Your task to perform on an android device: see tabs open on other devices in the chrome app Image 0: 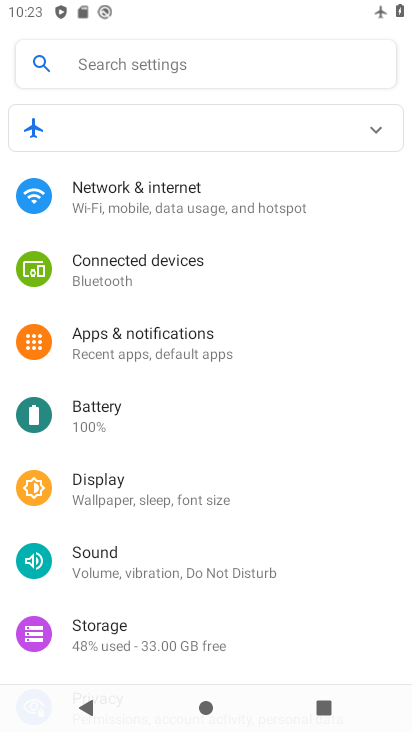
Step 0: press back button
Your task to perform on an android device: see tabs open on other devices in the chrome app Image 1: 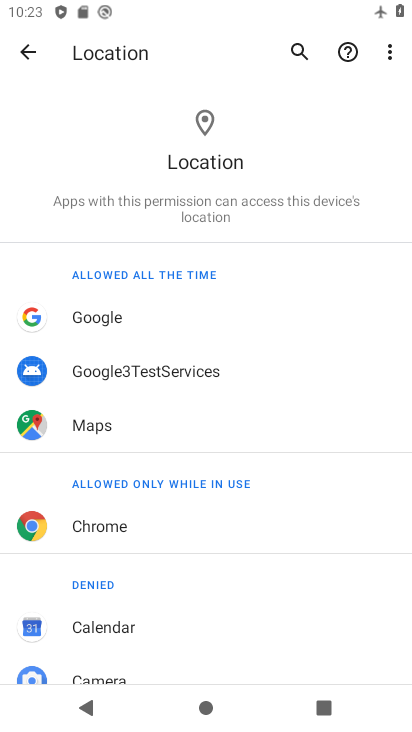
Step 1: press home button
Your task to perform on an android device: see tabs open on other devices in the chrome app Image 2: 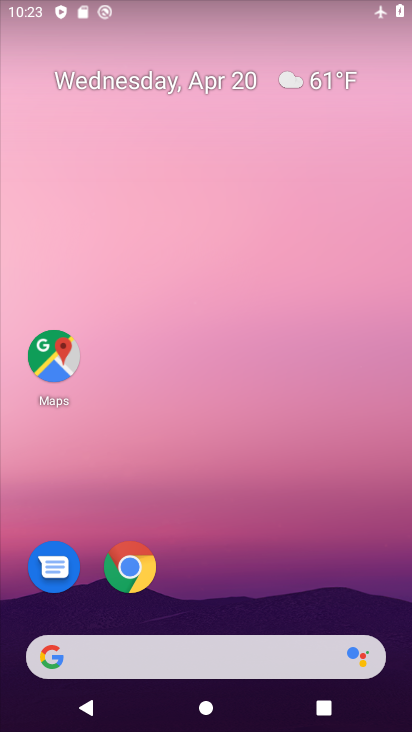
Step 2: click (131, 562)
Your task to perform on an android device: see tabs open on other devices in the chrome app Image 3: 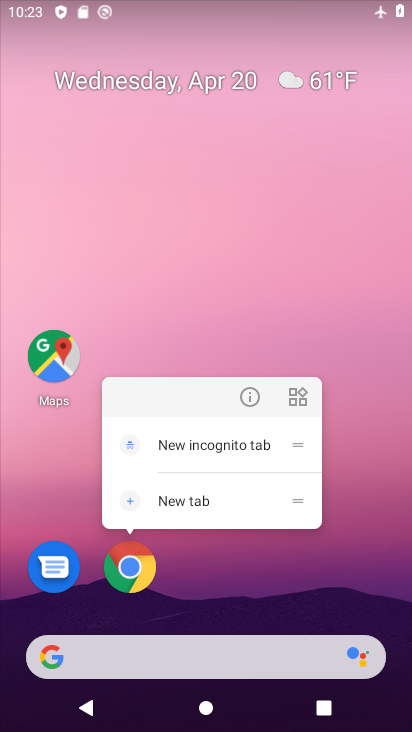
Step 3: click (134, 563)
Your task to perform on an android device: see tabs open on other devices in the chrome app Image 4: 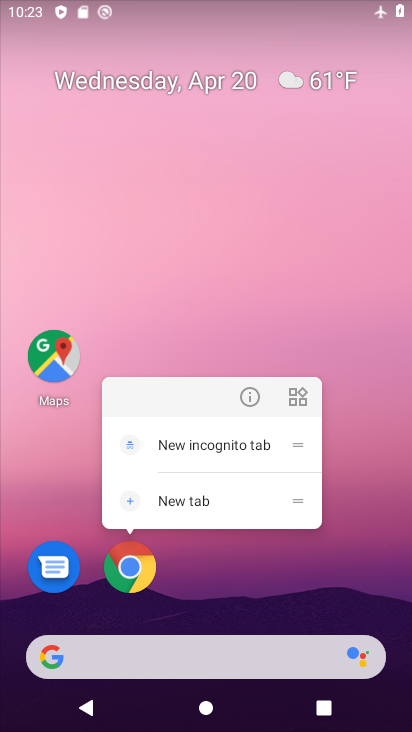
Step 4: click (134, 562)
Your task to perform on an android device: see tabs open on other devices in the chrome app Image 5: 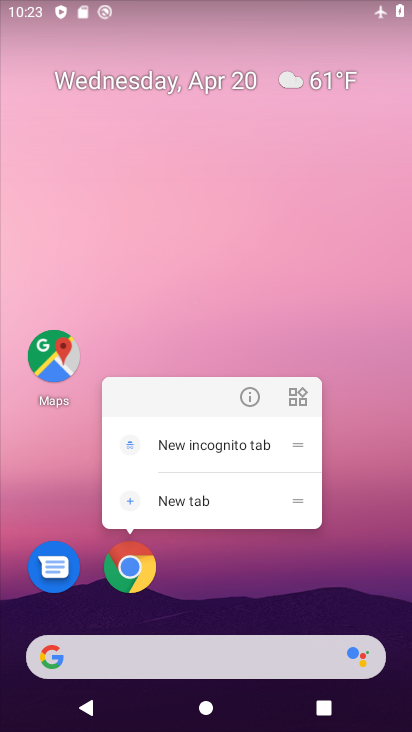
Step 5: click (125, 562)
Your task to perform on an android device: see tabs open on other devices in the chrome app Image 6: 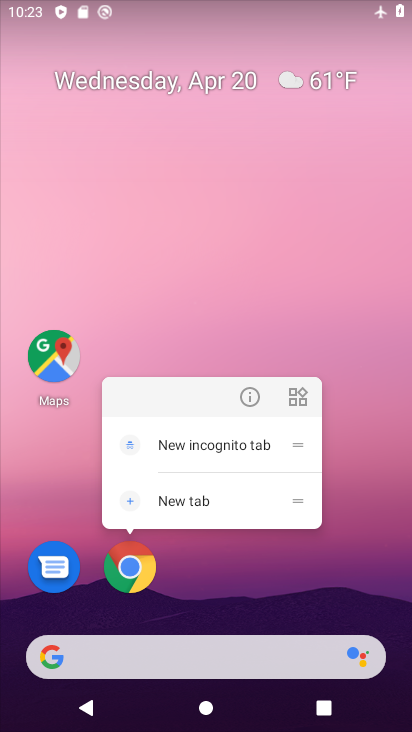
Step 6: click (139, 566)
Your task to perform on an android device: see tabs open on other devices in the chrome app Image 7: 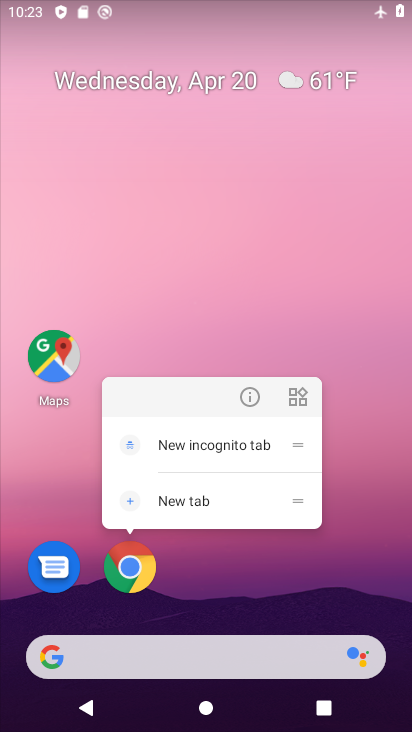
Step 7: click (138, 566)
Your task to perform on an android device: see tabs open on other devices in the chrome app Image 8: 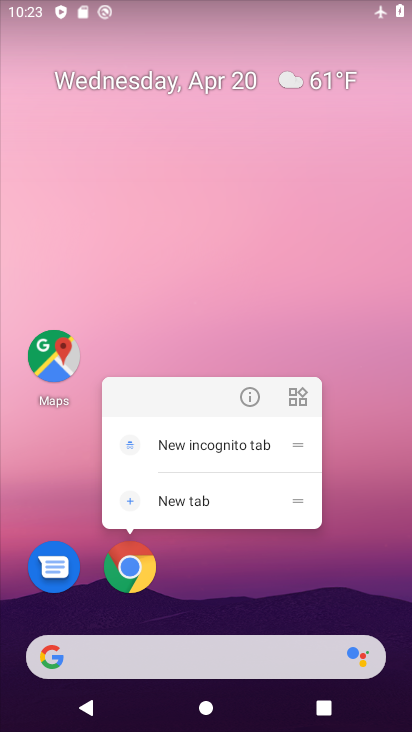
Step 8: click (123, 568)
Your task to perform on an android device: see tabs open on other devices in the chrome app Image 9: 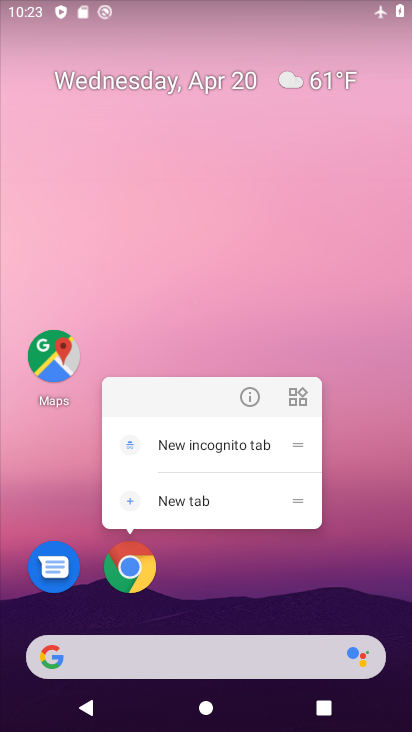
Step 9: click (122, 566)
Your task to perform on an android device: see tabs open on other devices in the chrome app Image 10: 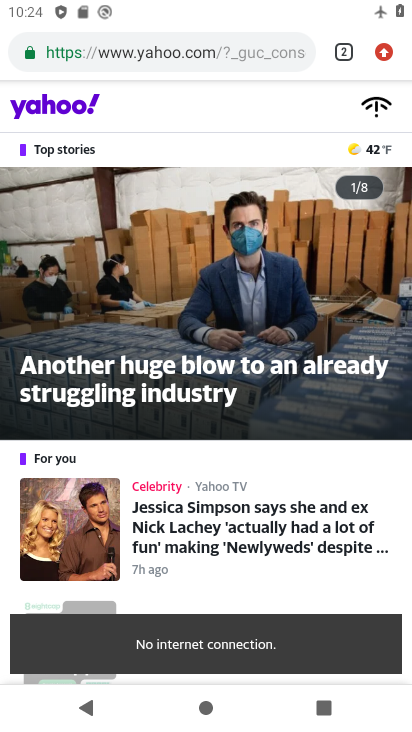
Step 10: task complete